Your task to perform on an android device: open device folders in google photos Image 0: 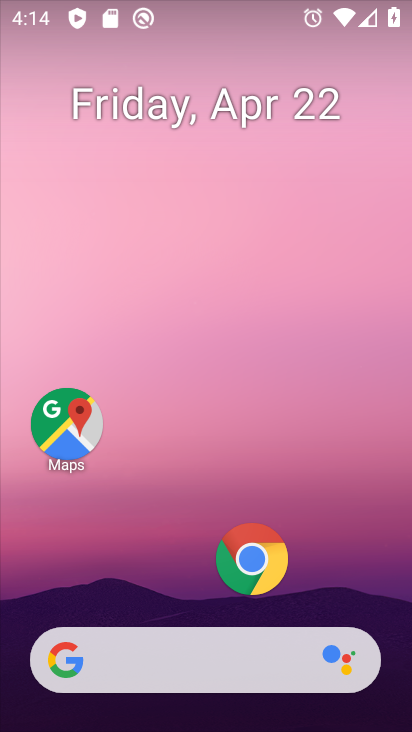
Step 0: drag from (139, 549) to (177, 205)
Your task to perform on an android device: open device folders in google photos Image 1: 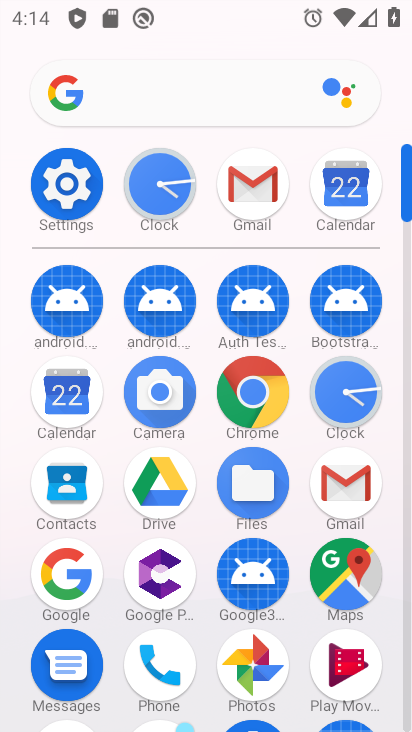
Step 1: click (236, 663)
Your task to perform on an android device: open device folders in google photos Image 2: 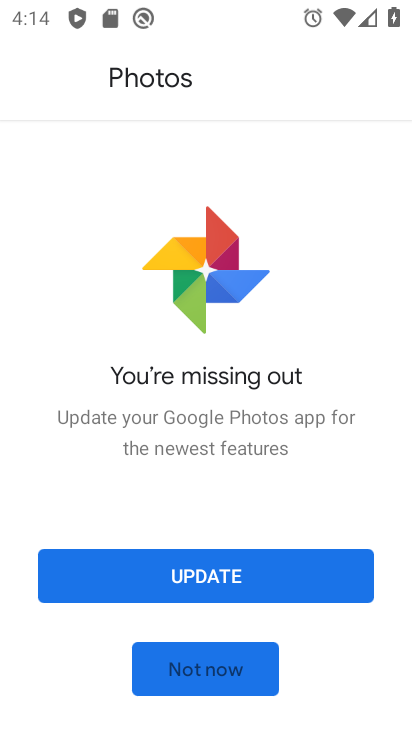
Step 2: click (203, 659)
Your task to perform on an android device: open device folders in google photos Image 3: 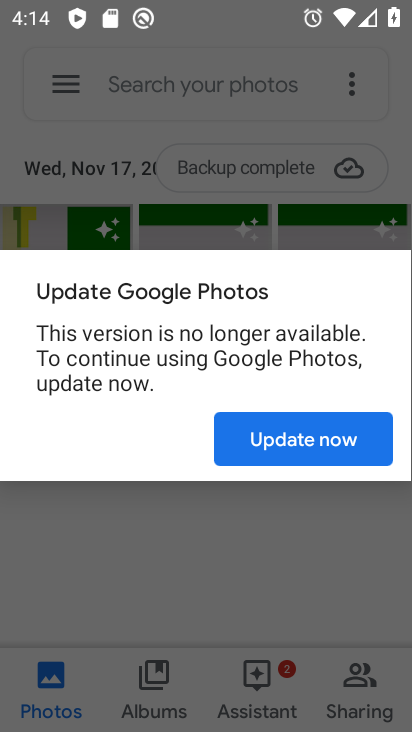
Step 3: click (305, 443)
Your task to perform on an android device: open device folders in google photos Image 4: 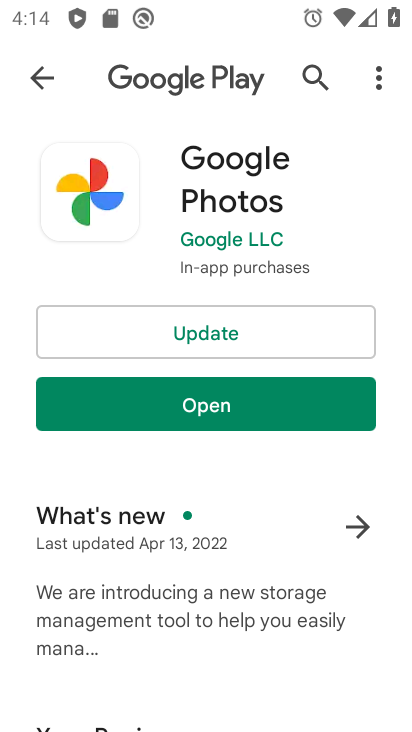
Step 4: click (188, 415)
Your task to perform on an android device: open device folders in google photos Image 5: 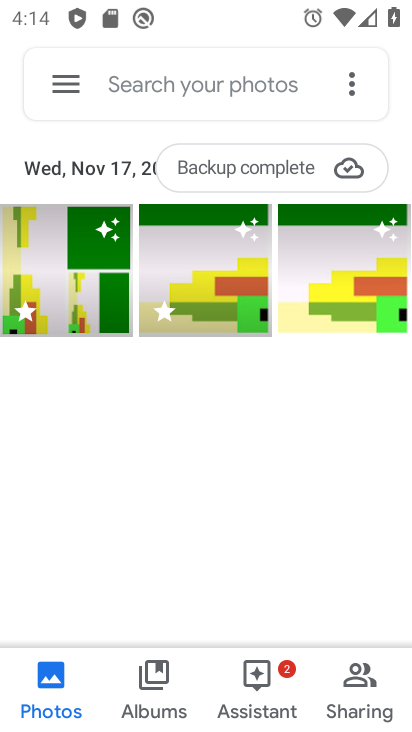
Step 5: click (51, 90)
Your task to perform on an android device: open device folders in google photos Image 6: 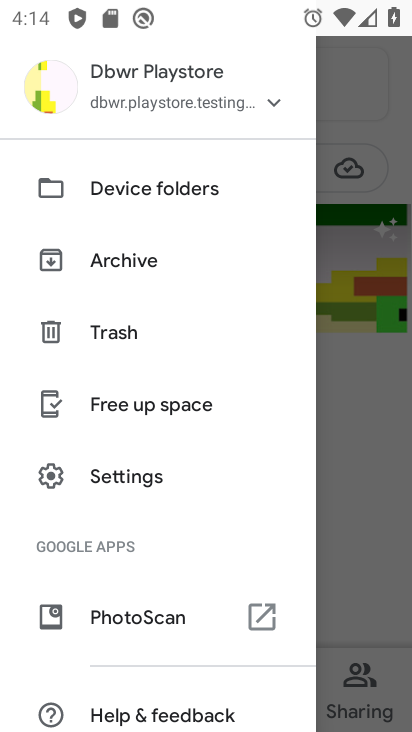
Step 6: click (136, 183)
Your task to perform on an android device: open device folders in google photos Image 7: 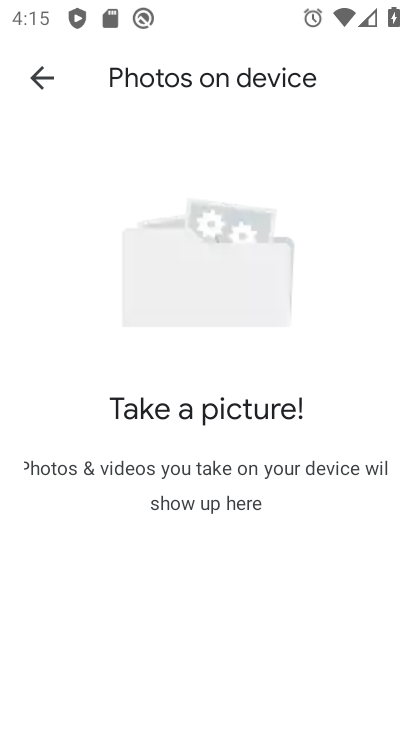
Step 7: task complete